Your task to perform on an android device: Show me popular videos on Youtube Image 0: 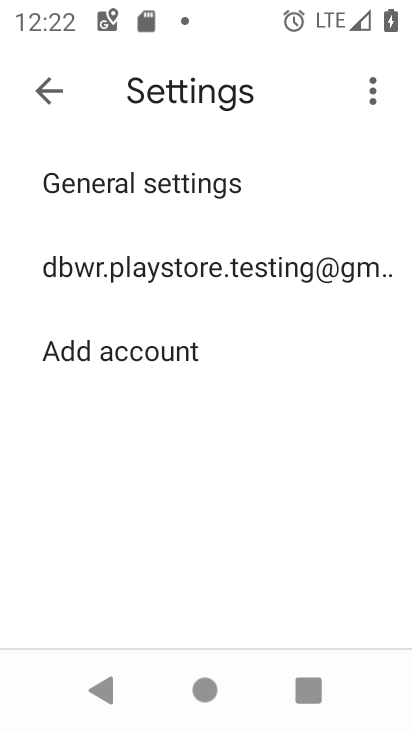
Step 0: press home button
Your task to perform on an android device: Show me popular videos on Youtube Image 1: 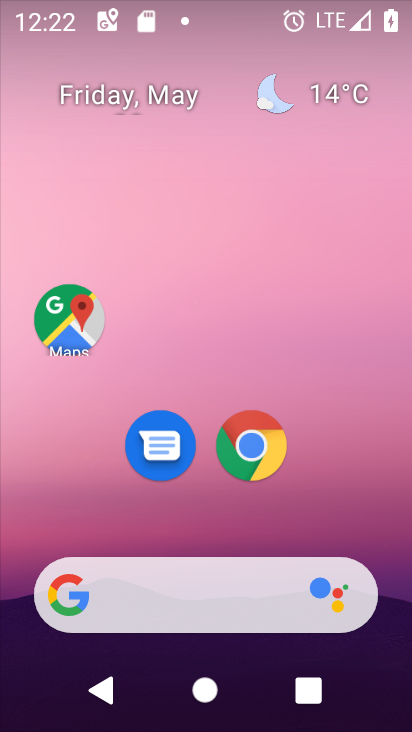
Step 1: drag from (233, 537) to (269, 235)
Your task to perform on an android device: Show me popular videos on Youtube Image 2: 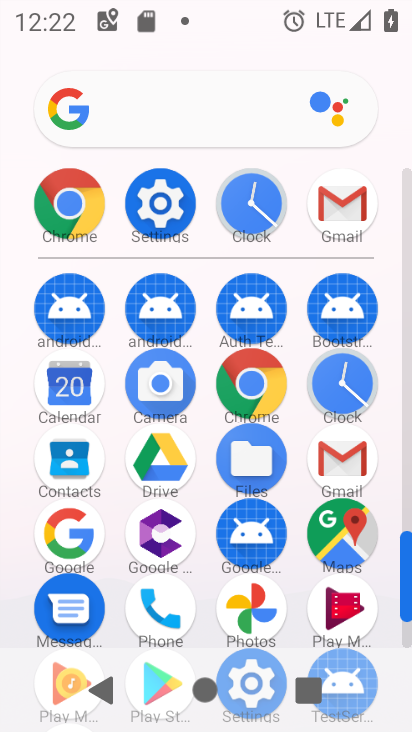
Step 2: press back button
Your task to perform on an android device: Show me popular videos on Youtube Image 3: 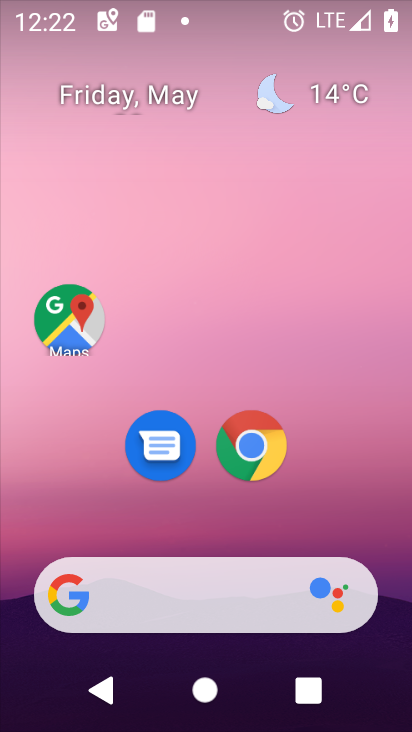
Step 3: drag from (185, 545) to (273, 137)
Your task to perform on an android device: Show me popular videos on Youtube Image 4: 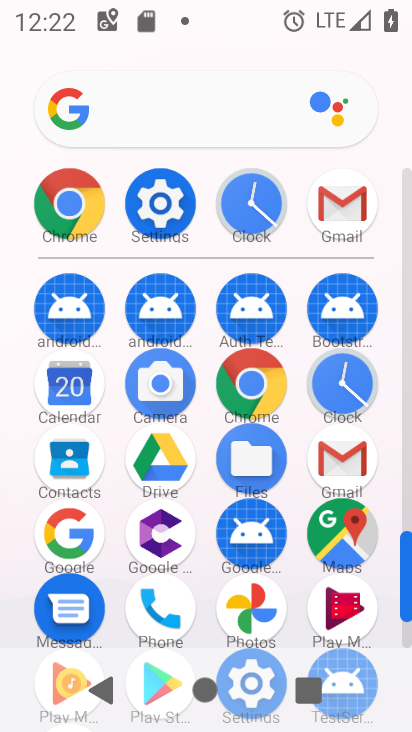
Step 4: drag from (216, 257) to (212, 42)
Your task to perform on an android device: Show me popular videos on Youtube Image 5: 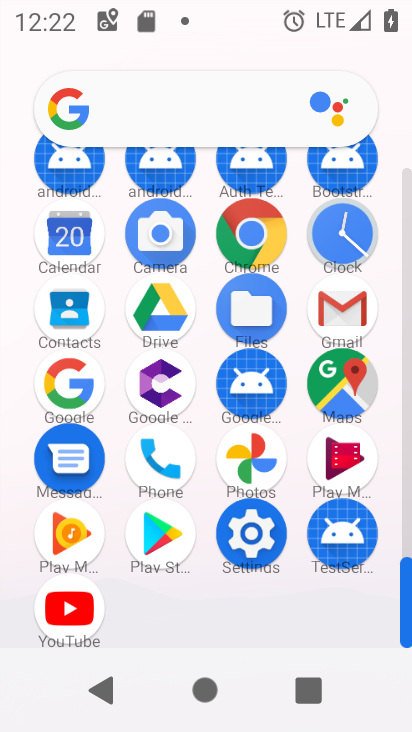
Step 5: click (87, 613)
Your task to perform on an android device: Show me popular videos on Youtube Image 6: 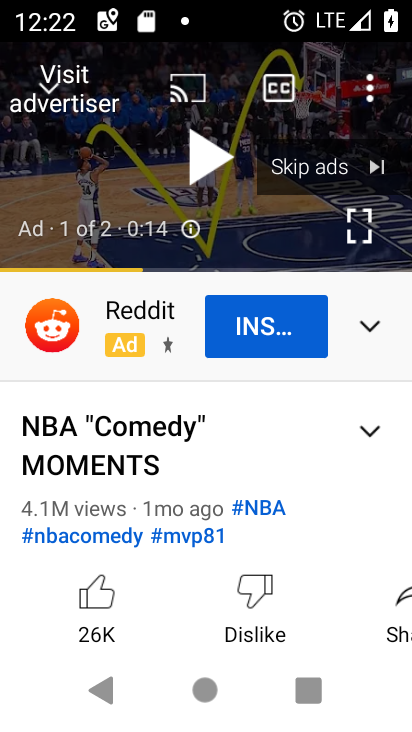
Step 6: click (118, 698)
Your task to perform on an android device: Show me popular videos on Youtube Image 7: 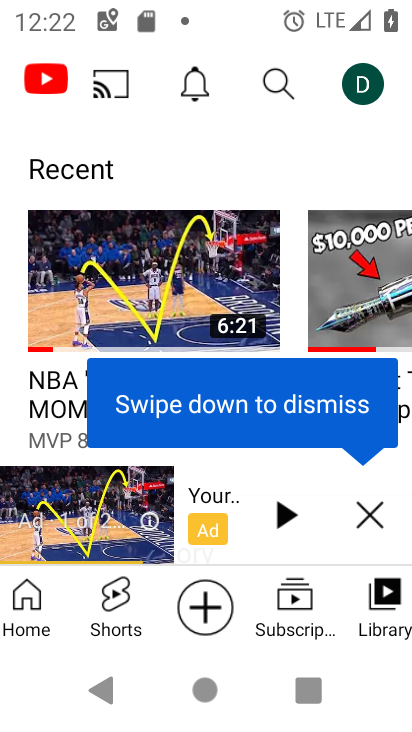
Step 7: click (30, 626)
Your task to perform on an android device: Show me popular videos on Youtube Image 8: 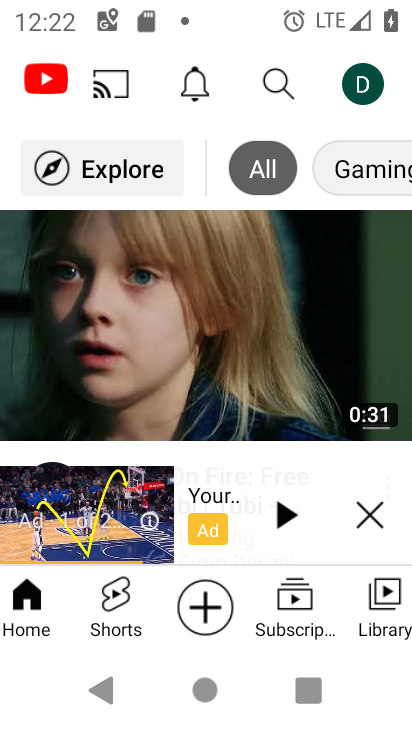
Step 8: drag from (106, 122) to (131, 392)
Your task to perform on an android device: Show me popular videos on Youtube Image 9: 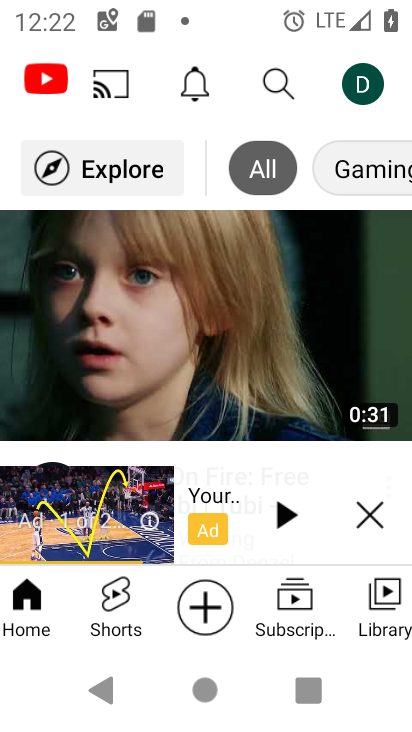
Step 9: click (135, 180)
Your task to perform on an android device: Show me popular videos on Youtube Image 10: 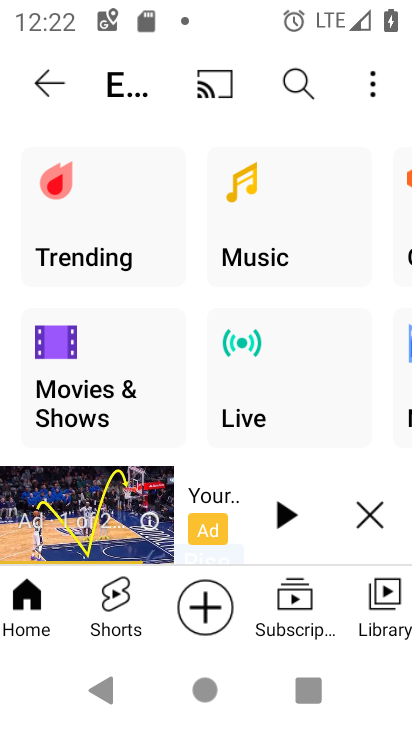
Step 10: click (126, 266)
Your task to perform on an android device: Show me popular videos on Youtube Image 11: 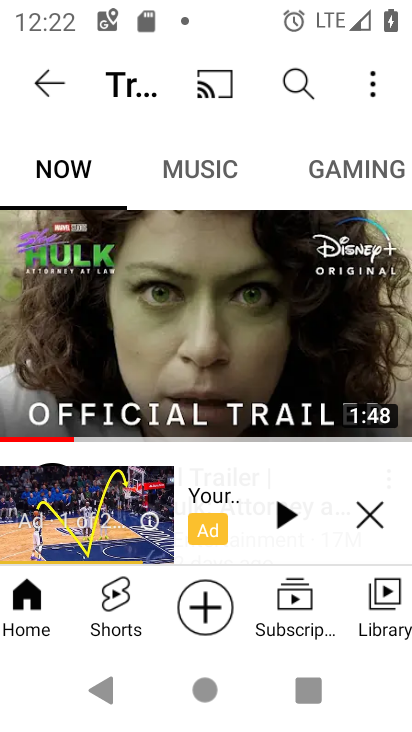
Step 11: task complete